Your task to perform on an android device: Open eBay Image 0: 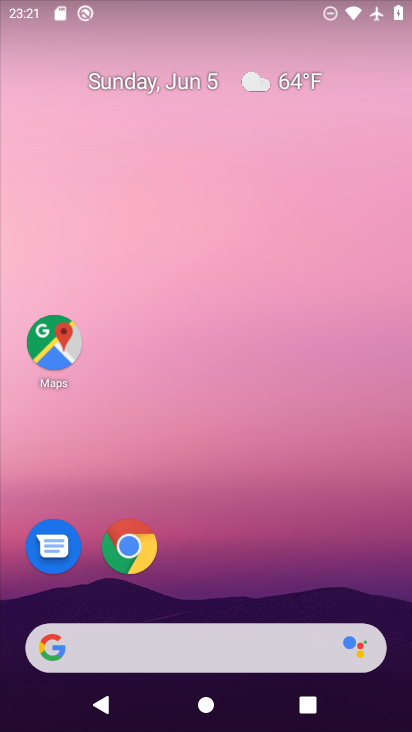
Step 0: click (179, 638)
Your task to perform on an android device: Open eBay Image 1: 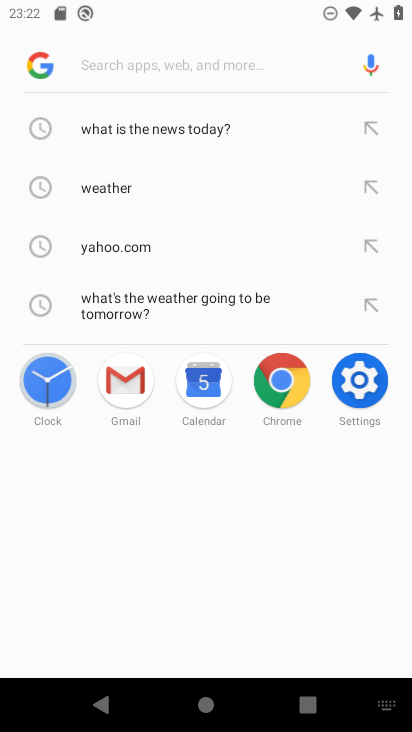
Step 1: type "eBay"
Your task to perform on an android device: Open eBay Image 2: 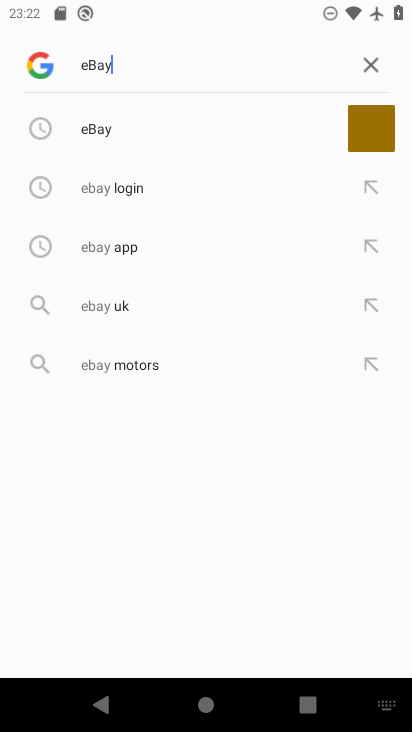
Step 2: type ""
Your task to perform on an android device: Open eBay Image 3: 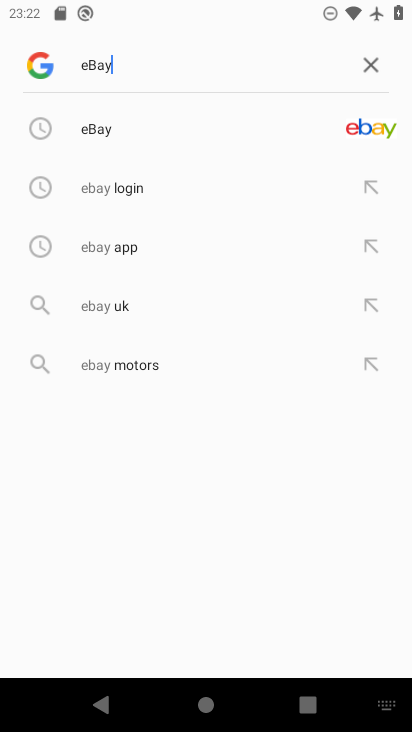
Step 3: click (134, 129)
Your task to perform on an android device: Open eBay Image 4: 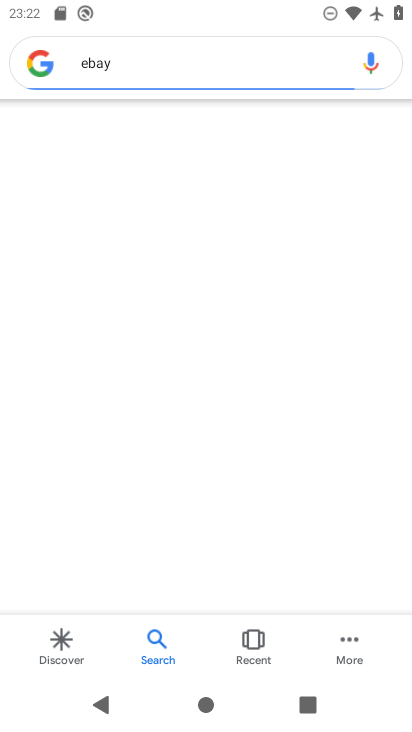
Step 4: drag from (219, 489) to (269, 101)
Your task to perform on an android device: Open eBay Image 5: 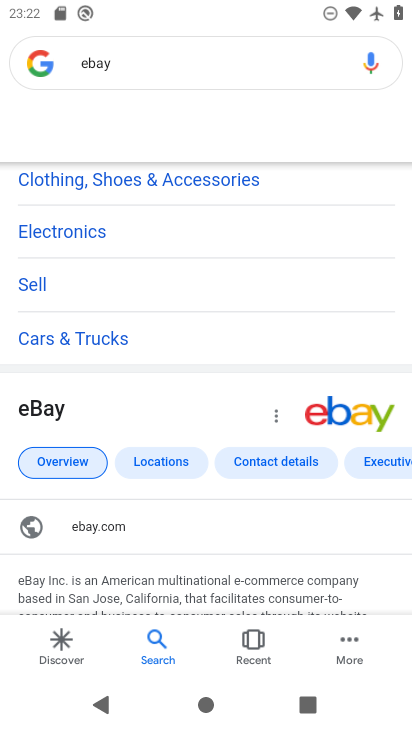
Step 5: drag from (215, 394) to (271, 2)
Your task to perform on an android device: Open eBay Image 6: 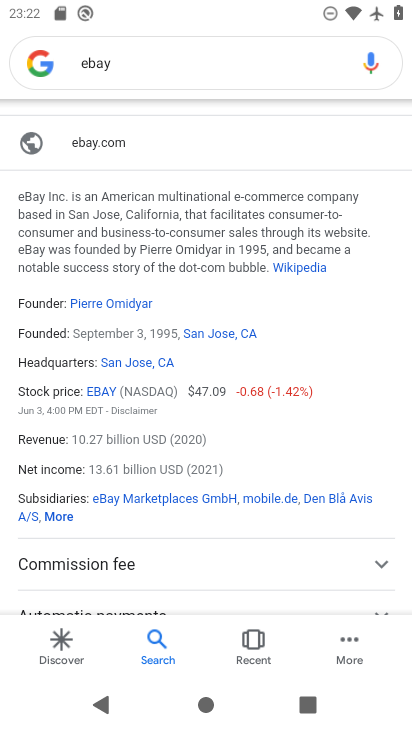
Step 6: drag from (221, 222) to (266, 682)
Your task to perform on an android device: Open eBay Image 7: 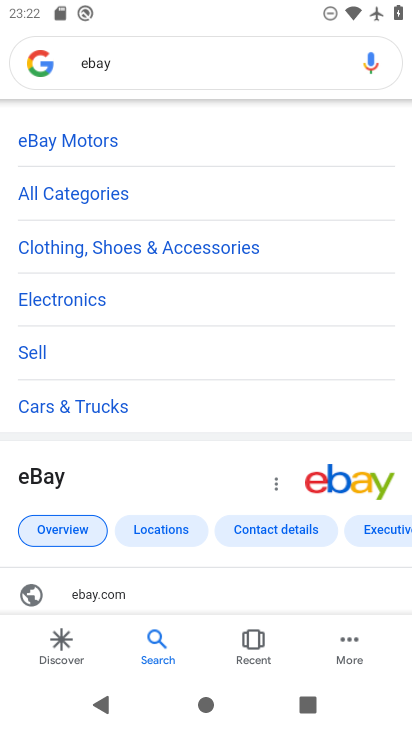
Step 7: drag from (213, 284) to (327, 729)
Your task to perform on an android device: Open eBay Image 8: 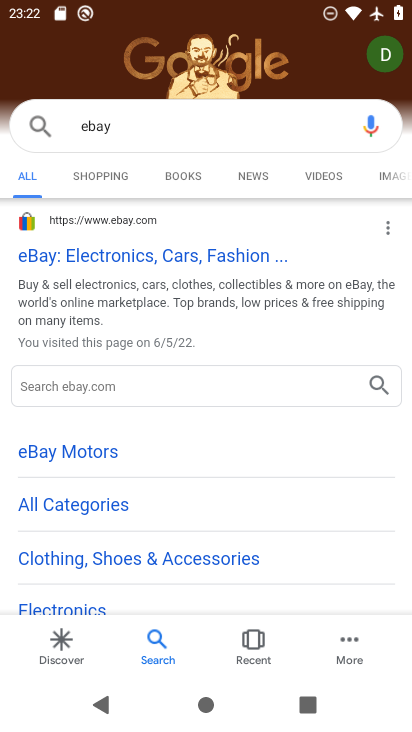
Step 8: click (85, 258)
Your task to perform on an android device: Open eBay Image 9: 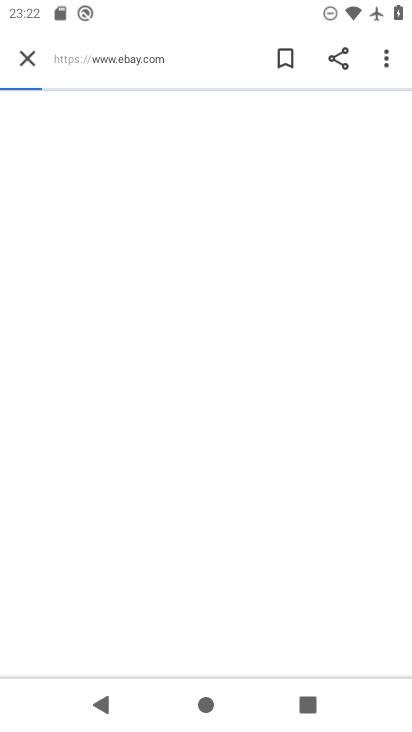
Step 9: task complete